Your task to perform on an android device: Open Google Maps and go to "Timeline" Image 0: 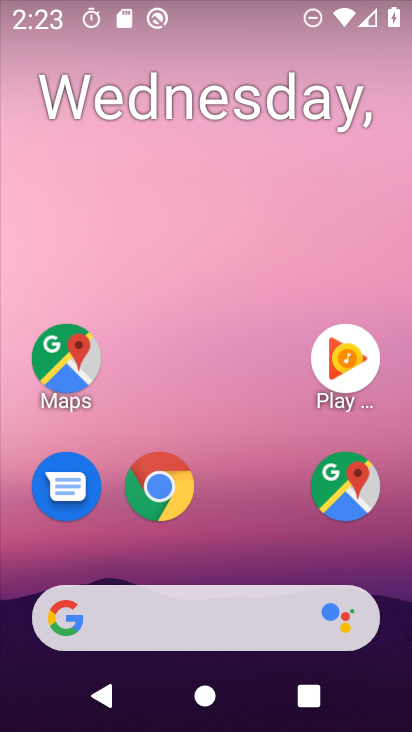
Step 0: press home button
Your task to perform on an android device: Open Google Maps and go to "Timeline" Image 1: 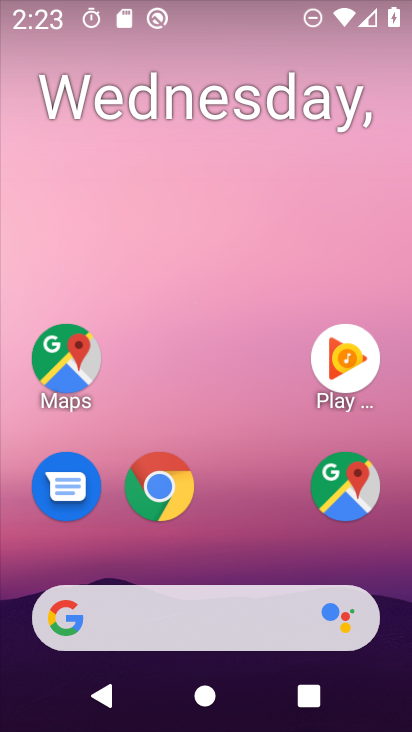
Step 1: drag from (242, 534) to (237, 70)
Your task to perform on an android device: Open Google Maps and go to "Timeline" Image 2: 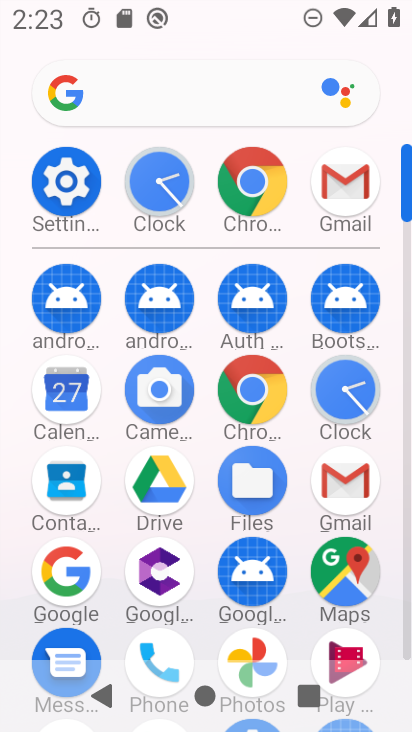
Step 2: click (344, 561)
Your task to perform on an android device: Open Google Maps and go to "Timeline" Image 3: 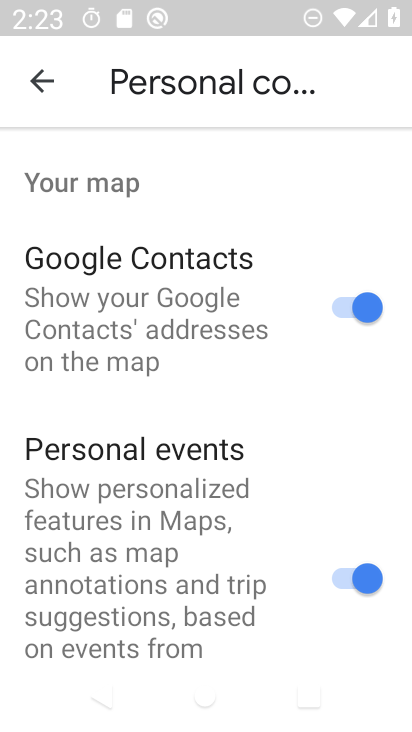
Step 3: press back button
Your task to perform on an android device: Open Google Maps and go to "Timeline" Image 4: 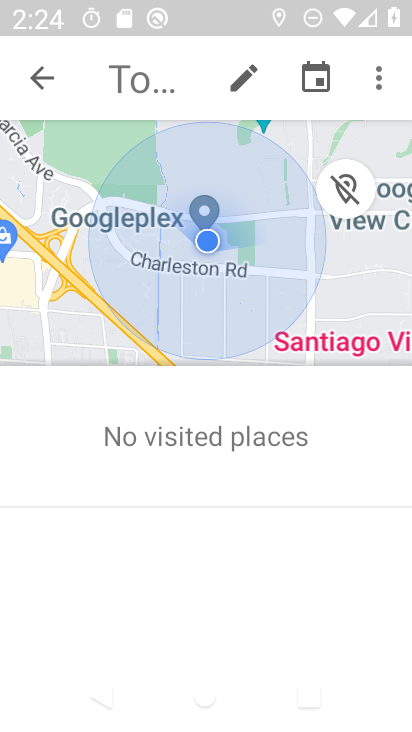
Step 4: press back button
Your task to perform on an android device: Open Google Maps and go to "Timeline" Image 5: 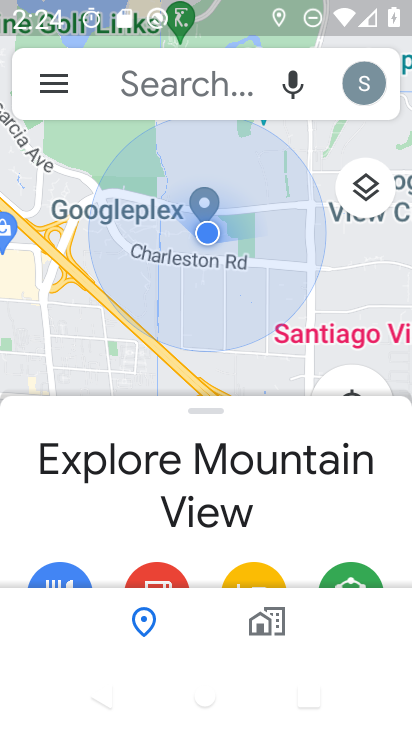
Step 5: click (59, 74)
Your task to perform on an android device: Open Google Maps and go to "Timeline" Image 6: 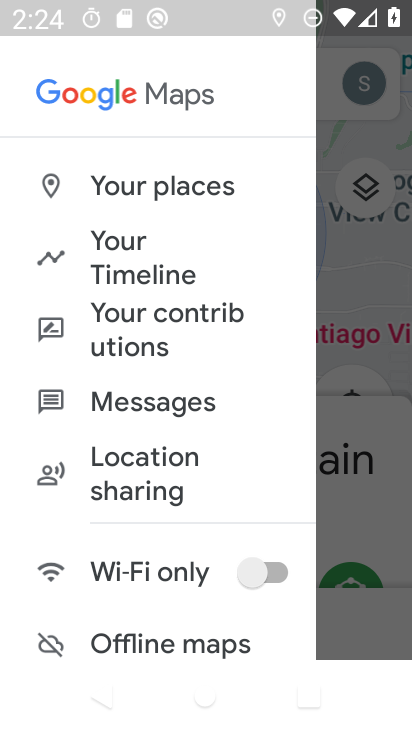
Step 6: click (152, 263)
Your task to perform on an android device: Open Google Maps and go to "Timeline" Image 7: 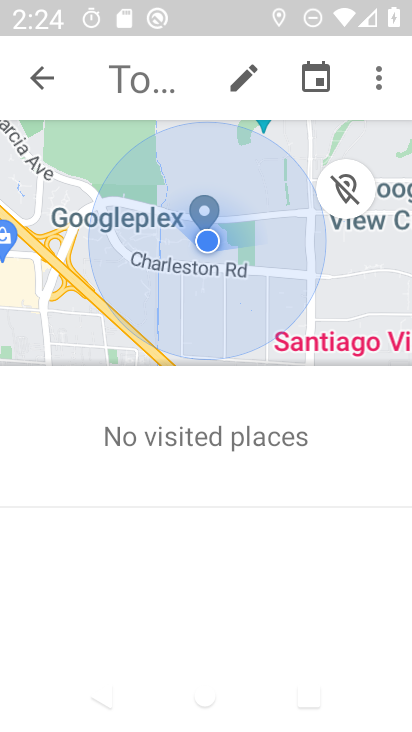
Step 7: task complete